Your task to perform on an android device: Open Chrome and go to the settings page Image 0: 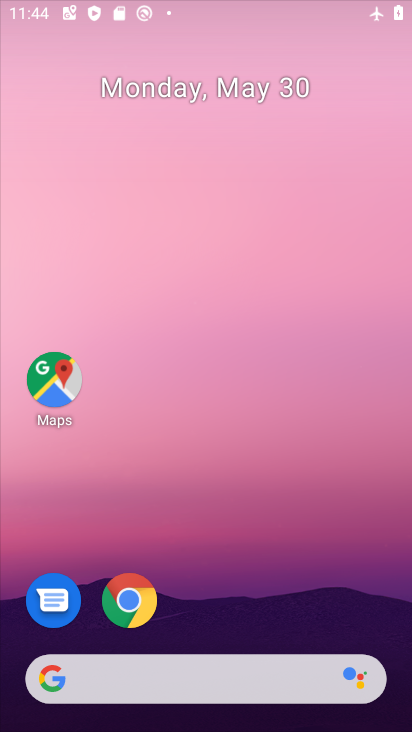
Step 0: drag from (230, 670) to (232, 46)
Your task to perform on an android device: Open Chrome and go to the settings page Image 1: 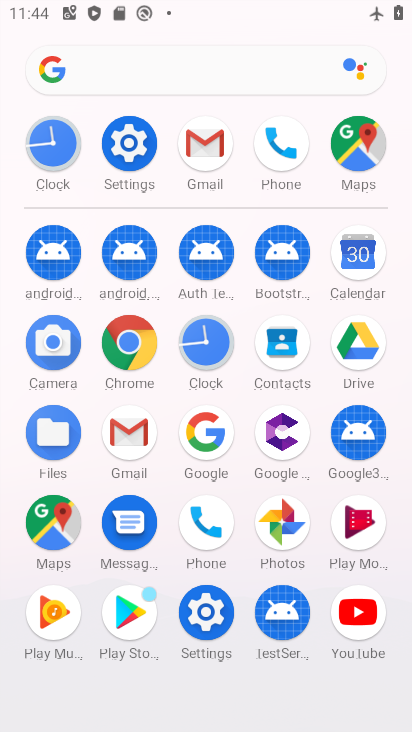
Step 1: click (134, 346)
Your task to perform on an android device: Open Chrome and go to the settings page Image 2: 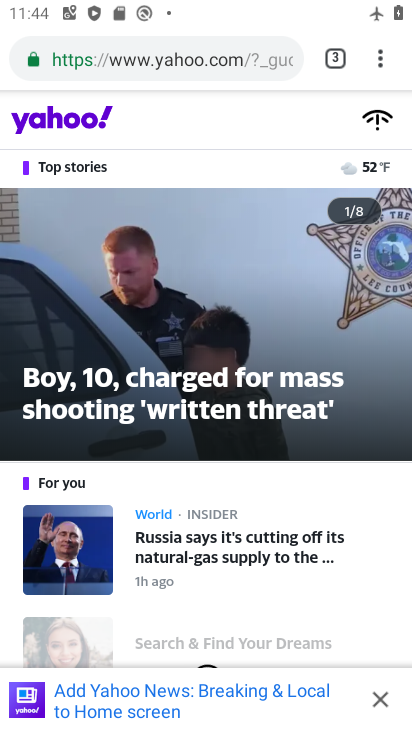
Step 2: click (378, 64)
Your task to perform on an android device: Open Chrome and go to the settings page Image 3: 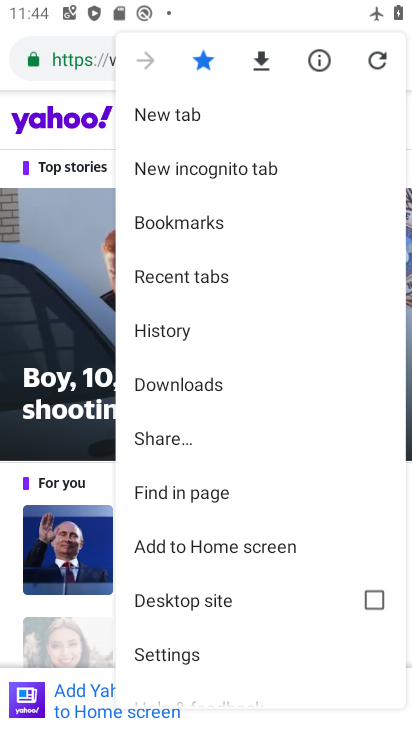
Step 3: click (181, 653)
Your task to perform on an android device: Open Chrome and go to the settings page Image 4: 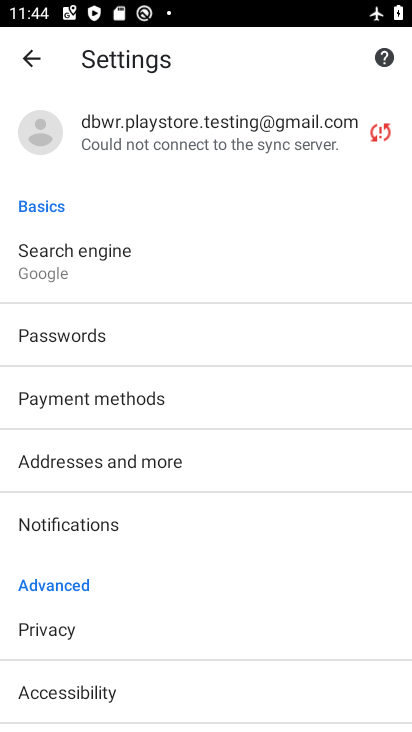
Step 4: task complete